Your task to perform on an android device: What's on my calendar tomorrow? Image 0: 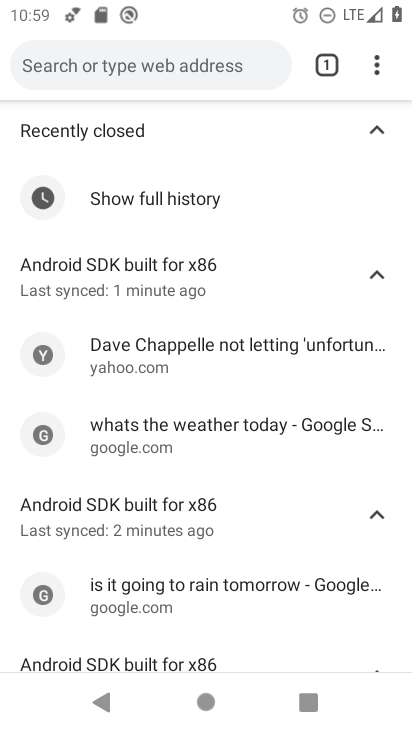
Step 0: press home button
Your task to perform on an android device: What's on my calendar tomorrow? Image 1: 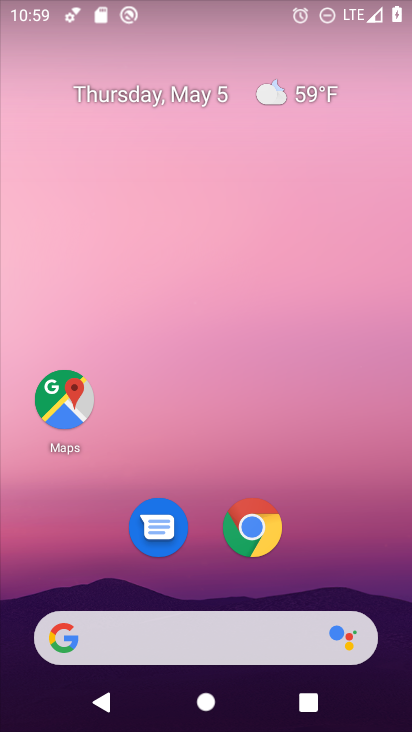
Step 1: drag from (255, 685) to (237, 117)
Your task to perform on an android device: What's on my calendar tomorrow? Image 2: 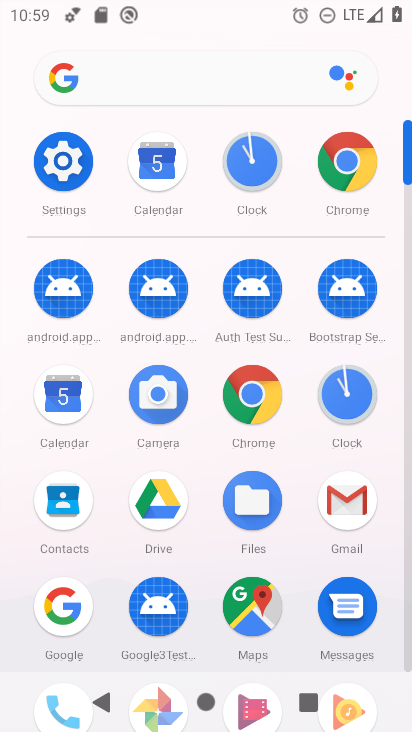
Step 2: click (166, 165)
Your task to perform on an android device: What's on my calendar tomorrow? Image 3: 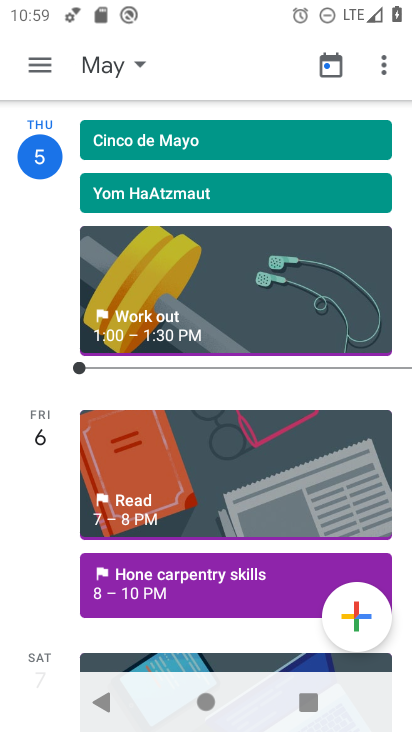
Step 3: click (99, 58)
Your task to perform on an android device: What's on my calendar tomorrow? Image 4: 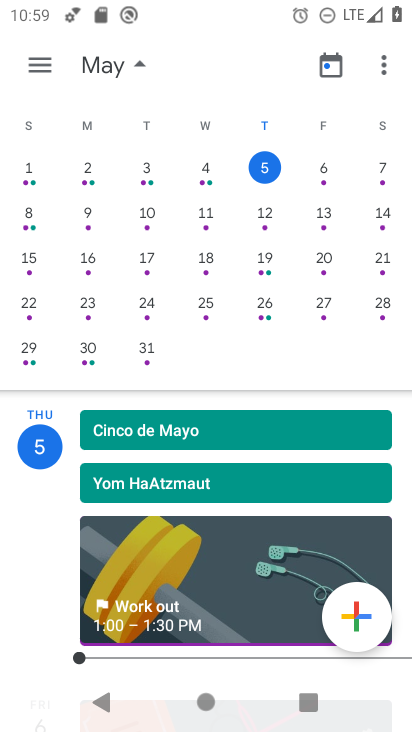
Step 4: click (385, 165)
Your task to perform on an android device: What's on my calendar tomorrow? Image 5: 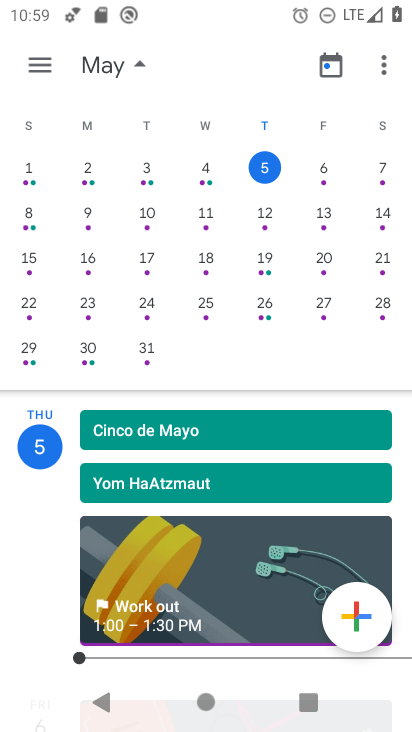
Step 5: click (380, 167)
Your task to perform on an android device: What's on my calendar tomorrow? Image 6: 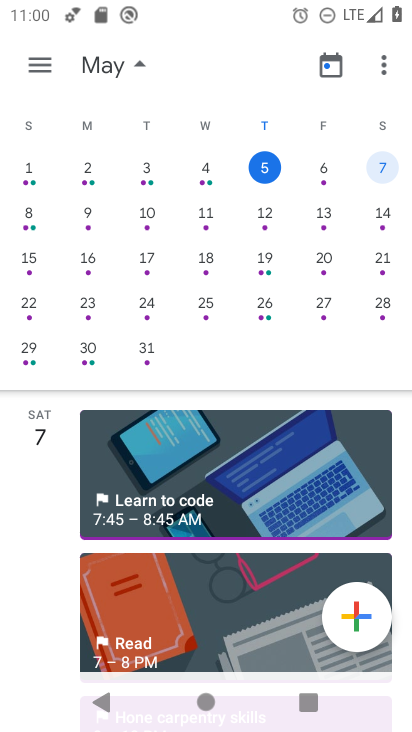
Step 6: click (41, 72)
Your task to perform on an android device: What's on my calendar tomorrow? Image 7: 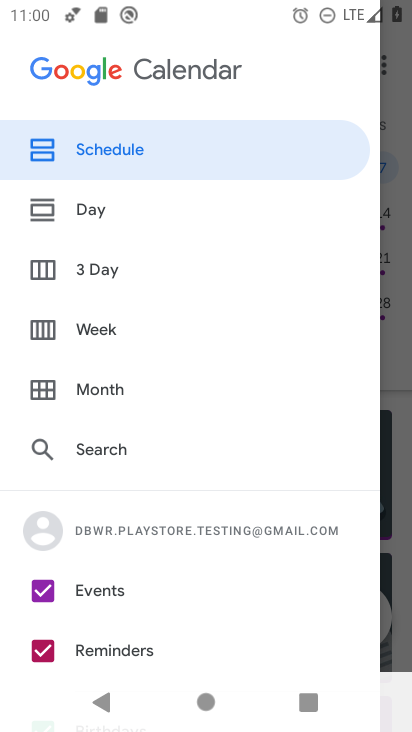
Step 7: click (391, 168)
Your task to perform on an android device: What's on my calendar tomorrow? Image 8: 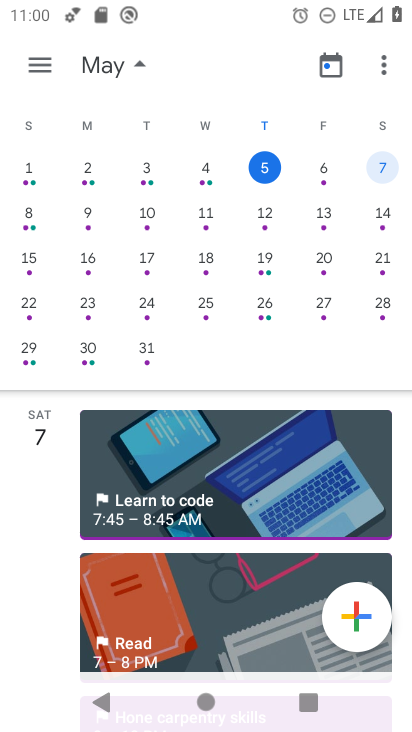
Step 8: click (387, 164)
Your task to perform on an android device: What's on my calendar tomorrow? Image 9: 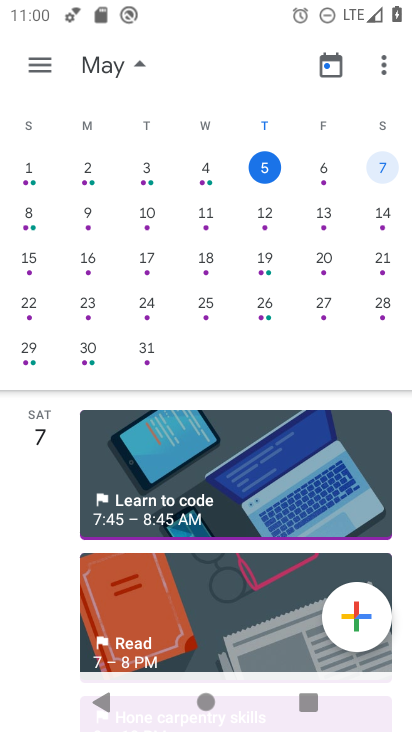
Step 9: task complete